Your task to perform on an android device: toggle priority inbox in the gmail app Image 0: 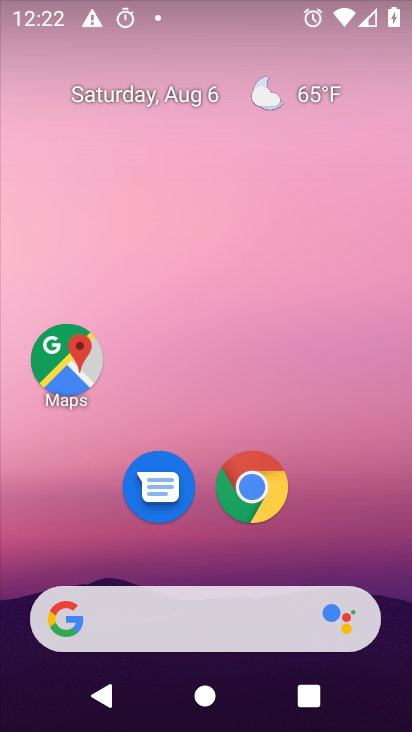
Step 0: drag from (223, 540) to (306, 53)
Your task to perform on an android device: toggle priority inbox in the gmail app Image 1: 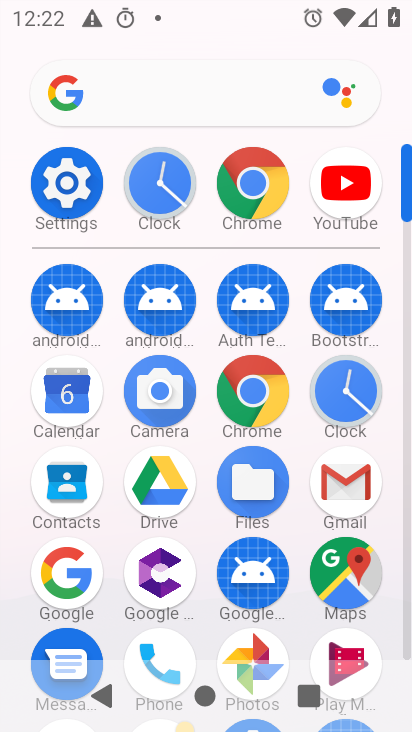
Step 1: click (335, 493)
Your task to perform on an android device: toggle priority inbox in the gmail app Image 2: 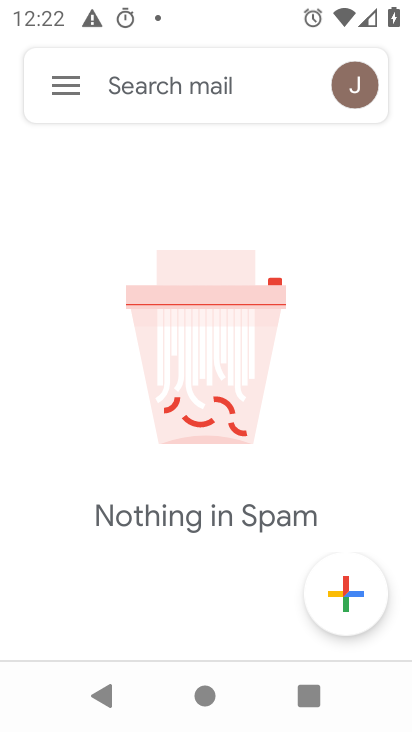
Step 2: click (58, 76)
Your task to perform on an android device: toggle priority inbox in the gmail app Image 3: 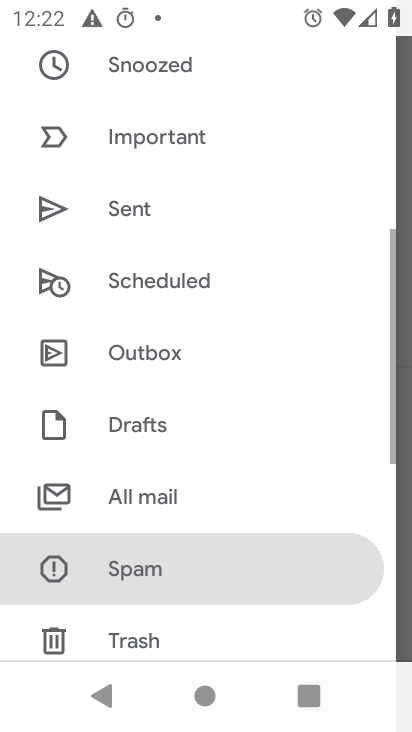
Step 3: drag from (164, 611) to (288, 17)
Your task to perform on an android device: toggle priority inbox in the gmail app Image 4: 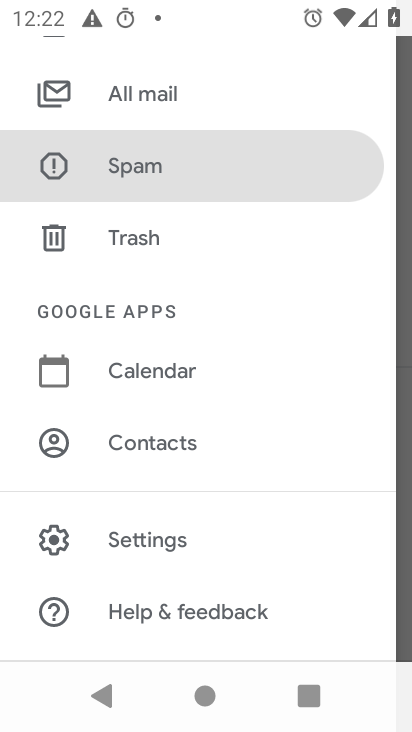
Step 4: click (202, 527)
Your task to perform on an android device: toggle priority inbox in the gmail app Image 5: 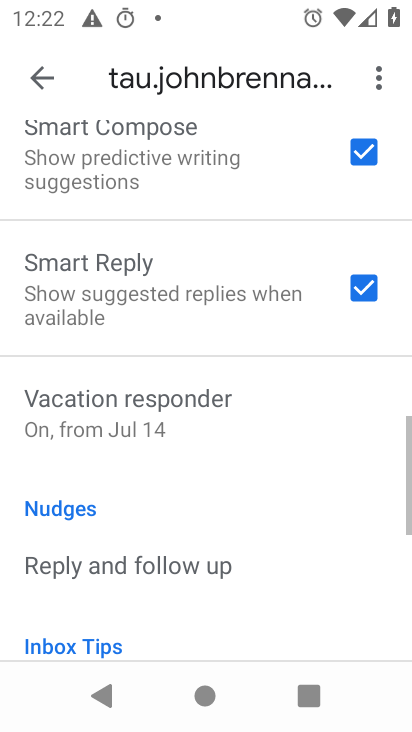
Step 5: drag from (187, 144) to (165, 730)
Your task to perform on an android device: toggle priority inbox in the gmail app Image 6: 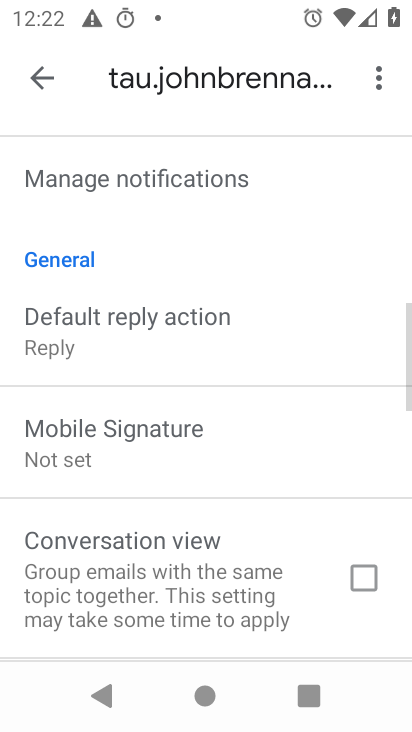
Step 6: drag from (196, 228) to (213, 726)
Your task to perform on an android device: toggle priority inbox in the gmail app Image 7: 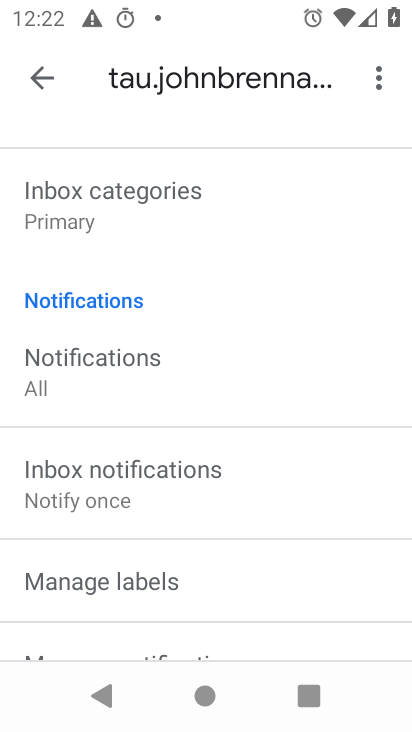
Step 7: click (38, 77)
Your task to perform on an android device: toggle priority inbox in the gmail app Image 8: 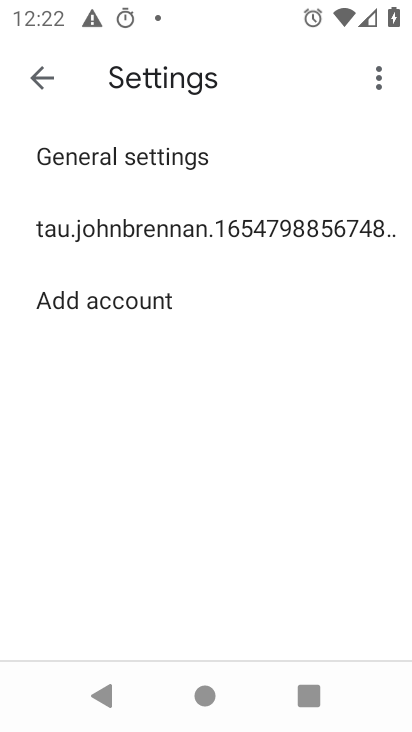
Step 8: click (124, 231)
Your task to perform on an android device: toggle priority inbox in the gmail app Image 9: 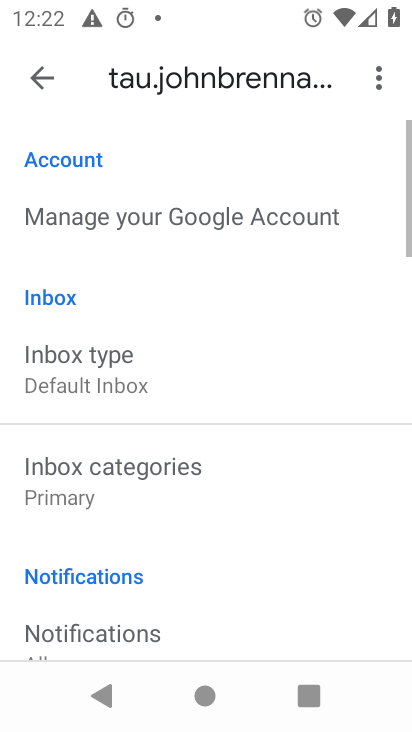
Step 9: click (122, 364)
Your task to perform on an android device: toggle priority inbox in the gmail app Image 10: 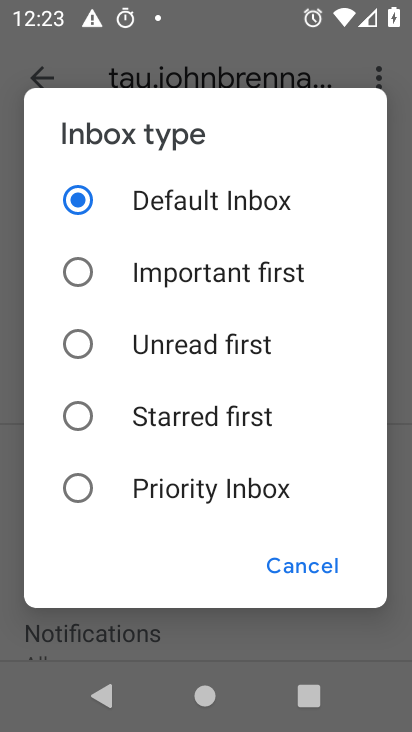
Step 10: click (83, 495)
Your task to perform on an android device: toggle priority inbox in the gmail app Image 11: 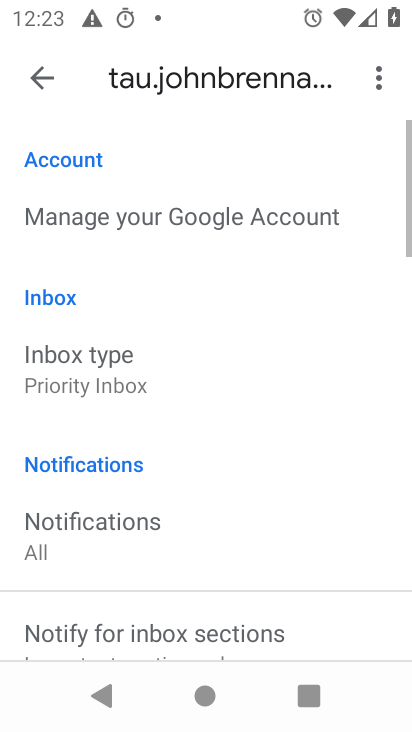
Step 11: task complete